Your task to perform on an android device: check out phone information Image 0: 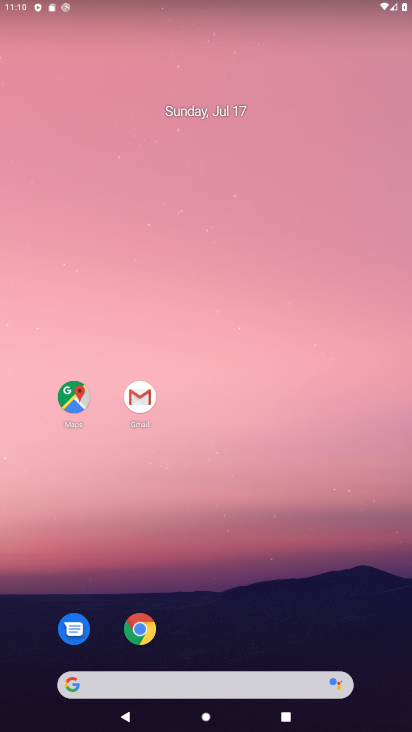
Step 0: drag from (378, 663) to (289, 45)
Your task to perform on an android device: check out phone information Image 1: 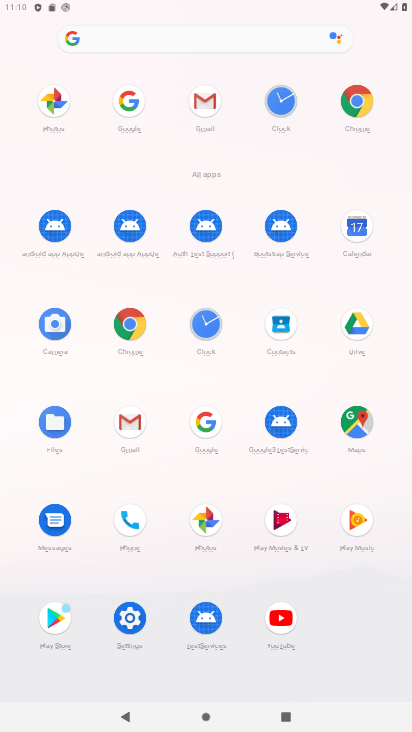
Step 1: click (124, 625)
Your task to perform on an android device: check out phone information Image 2: 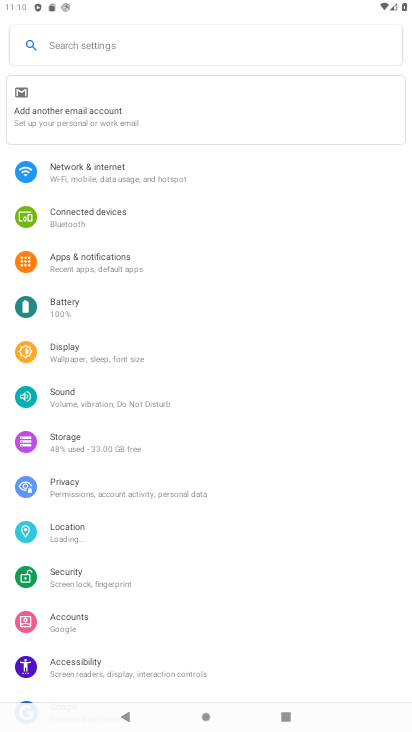
Step 2: drag from (224, 659) to (149, 229)
Your task to perform on an android device: check out phone information Image 3: 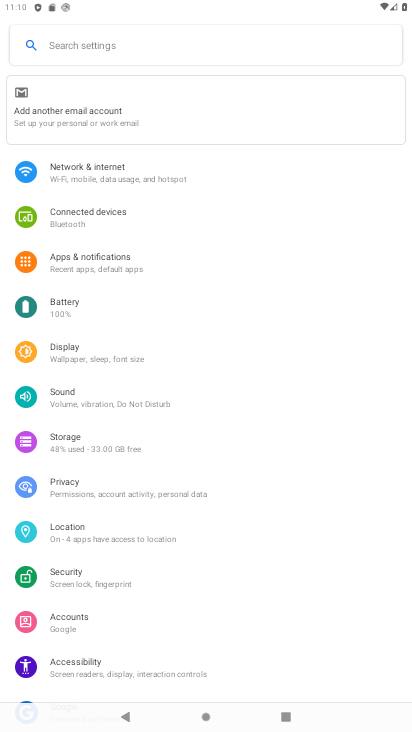
Step 3: drag from (270, 646) to (214, 160)
Your task to perform on an android device: check out phone information Image 4: 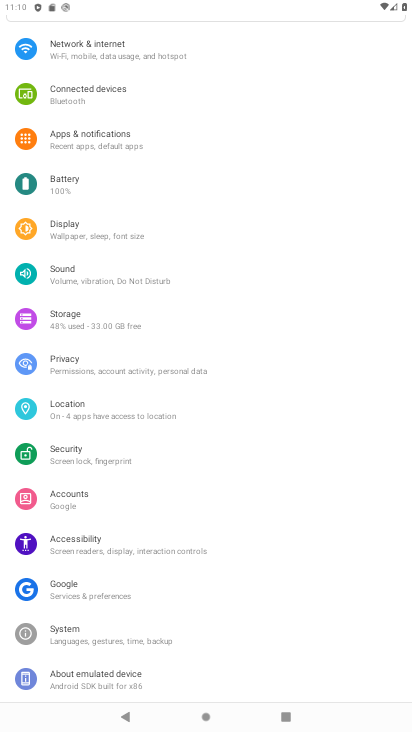
Step 4: click (131, 683)
Your task to perform on an android device: check out phone information Image 5: 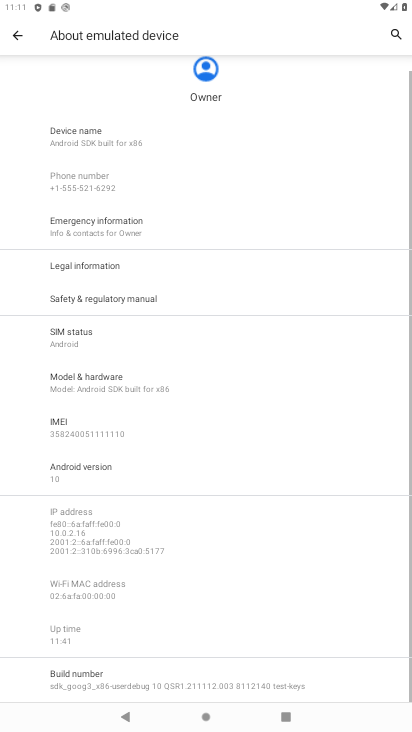
Step 5: task complete